Your task to perform on an android device: turn off notifications settings in the gmail app Image 0: 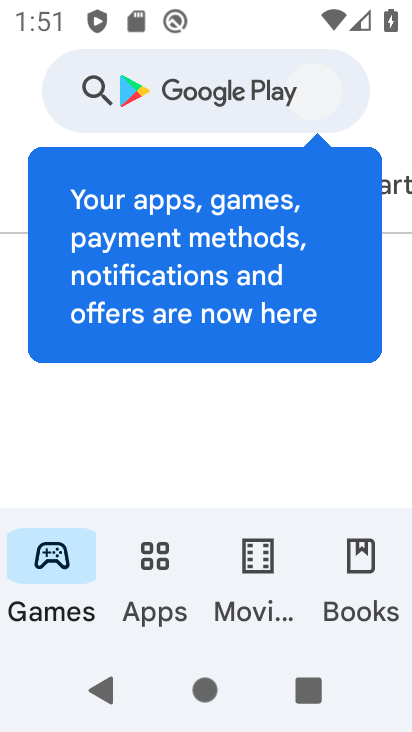
Step 0: press home button
Your task to perform on an android device: turn off notifications settings in the gmail app Image 1: 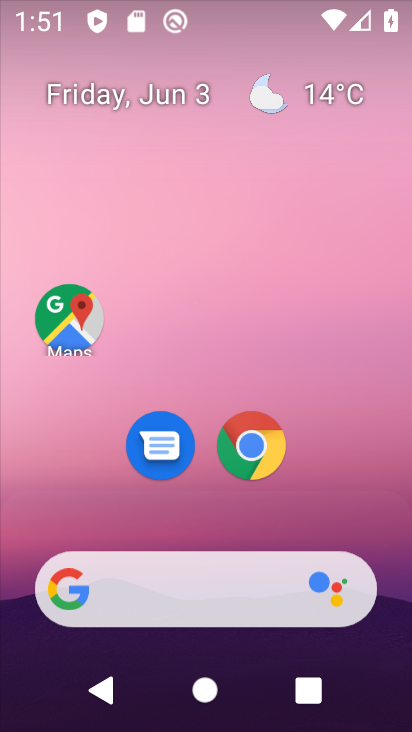
Step 1: drag from (116, 614) to (244, 146)
Your task to perform on an android device: turn off notifications settings in the gmail app Image 2: 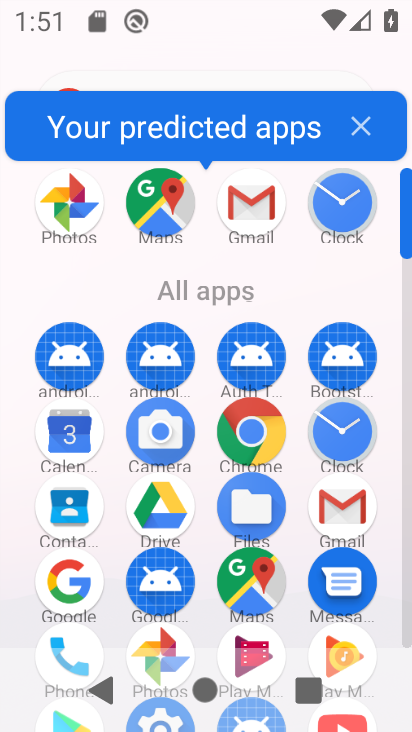
Step 2: click (343, 511)
Your task to perform on an android device: turn off notifications settings in the gmail app Image 3: 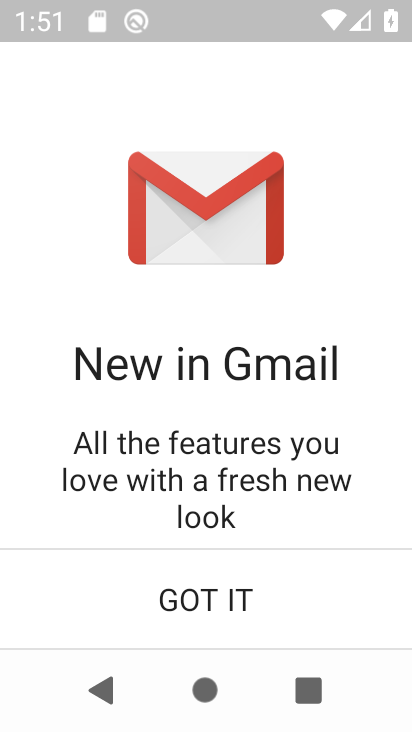
Step 3: click (181, 628)
Your task to perform on an android device: turn off notifications settings in the gmail app Image 4: 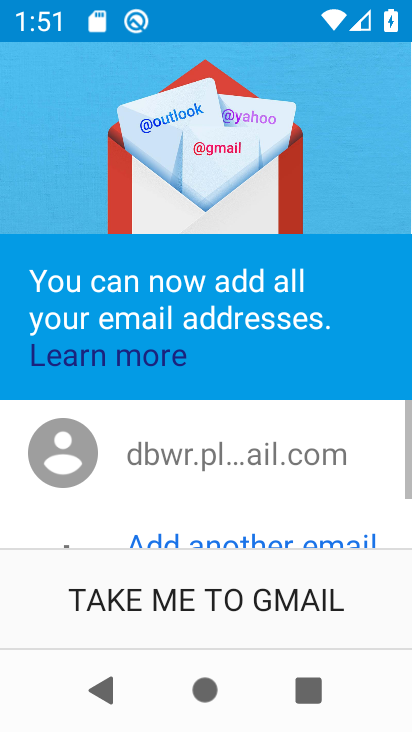
Step 4: click (203, 620)
Your task to perform on an android device: turn off notifications settings in the gmail app Image 5: 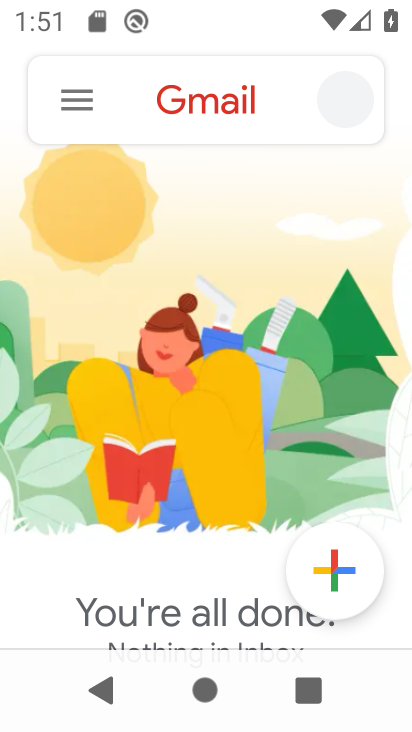
Step 5: click (78, 111)
Your task to perform on an android device: turn off notifications settings in the gmail app Image 6: 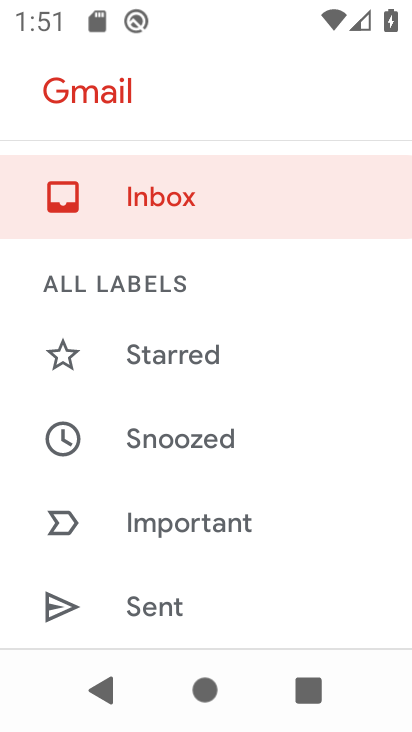
Step 6: drag from (160, 532) to (327, 148)
Your task to perform on an android device: turn off notifications settings in the gmail app Image 7: 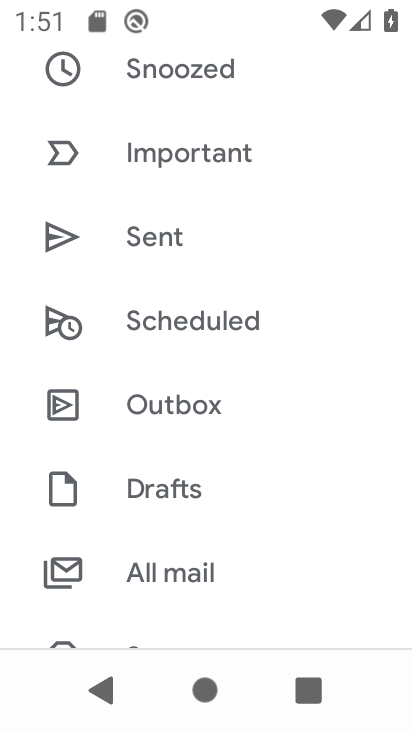
Step 7: drag from (214, 509) to (304, 217)
Your task to perform on an android device: turn off notifications settings in the gmail app Image 8: 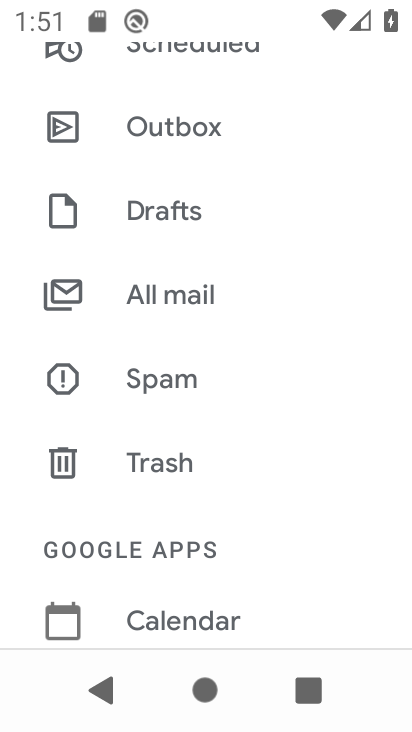
Step 8: drag from (207, 528) to (288, 201)
Your task to perform on an android device: turn off notifications settings in the gmail app Image 9: 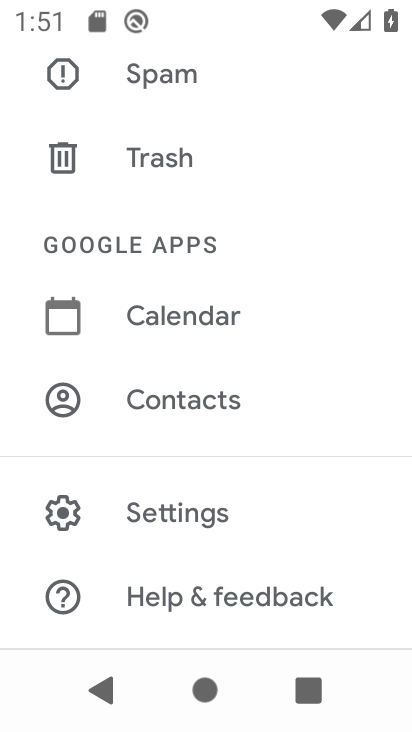
Step 9: click (211, 501)
Your task to perform on an android device: turn off notifications settings in the gmail app Image 10: 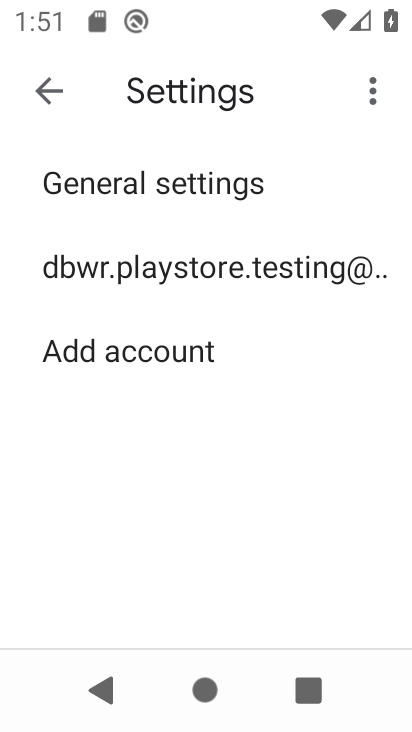
Step 10: click (300, 280)
Your task to perform on an android device: turn off notifications settings in the gmail app Image 11: 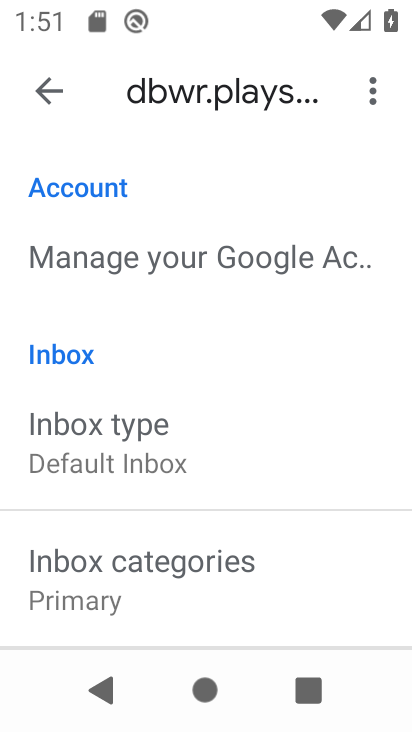
Step 11: drag from (199, 568) to (339, 153)
Your task to perform on an android device: turn off notifications settings in the gmail app Image 12: 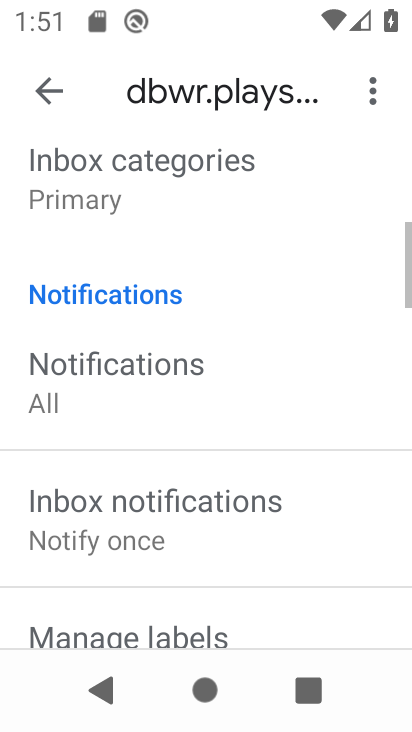
Step 12: drag from (191, 576) to (283, 238)
Your task to perform on an android device: turn off notifications settings in the gmail app Image 13: 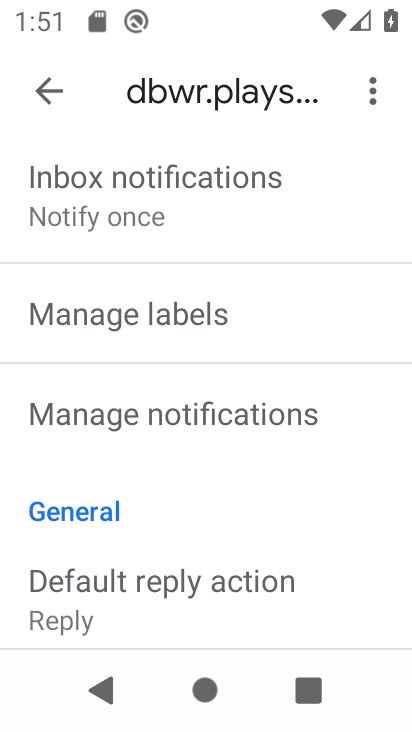
Step 13: click (206, 419)
Your task to perform on an android device: turn off notifications settings in the gmail app Image 14: 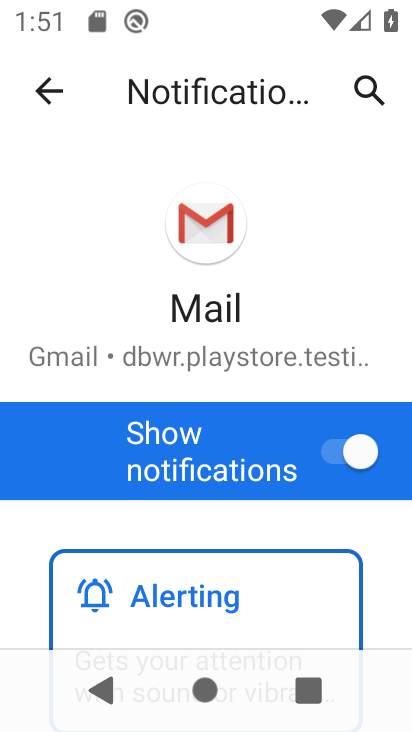
Step 14: click (331, 452)
Your task to perform on an android device: turn off notifications settings in the gmail app Image 15: 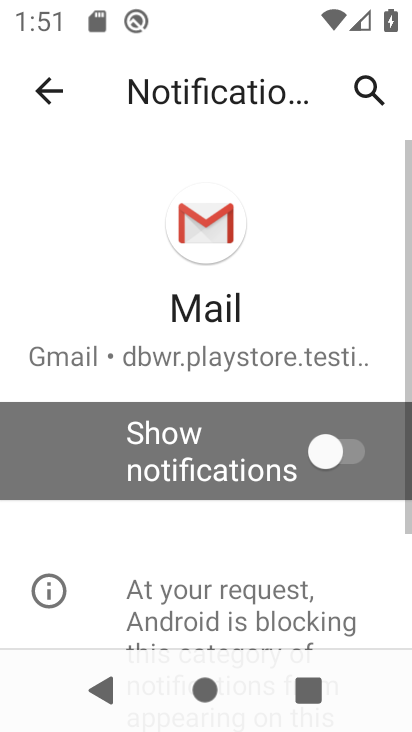
Step 15: task complete